Your task to perform on an android device: all mails in gmail Image 0: 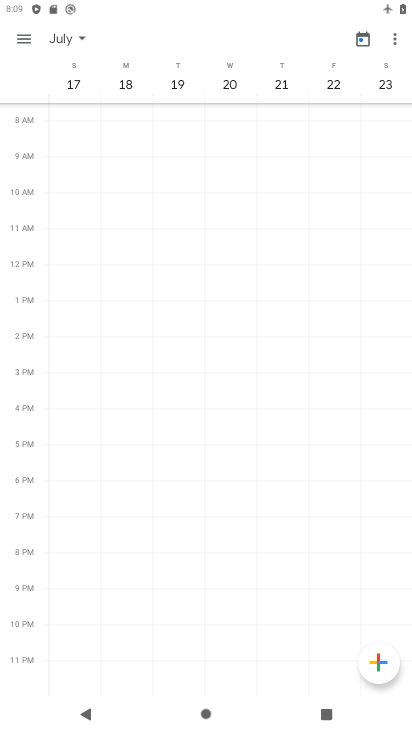
Step 0: press home button
Your task to perform on an android device: all mails in gmail Image 1: 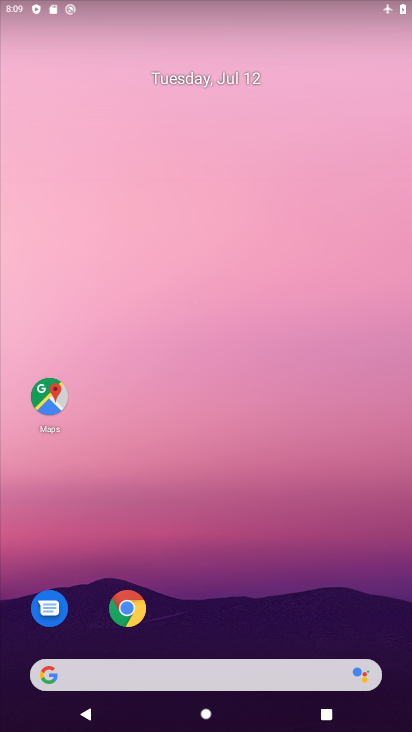
Step 1: drag from (182, 650) to (147, 111)
Your task to perform on an android device: all mails in gmail Image 2: 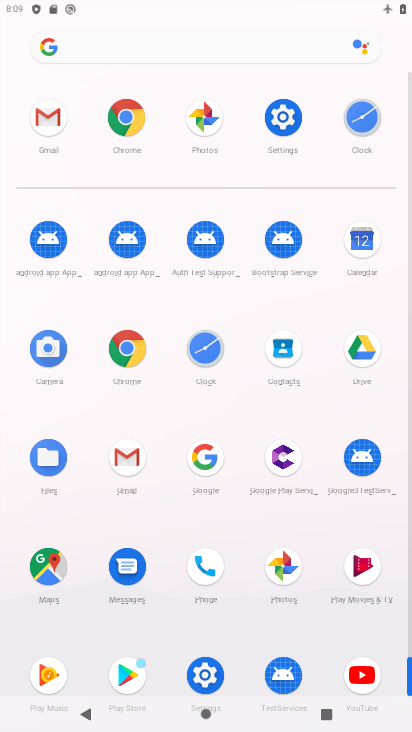
Step 2: click (126, 476)
Your task to perform on an android device: all mails in gmail Image 3: 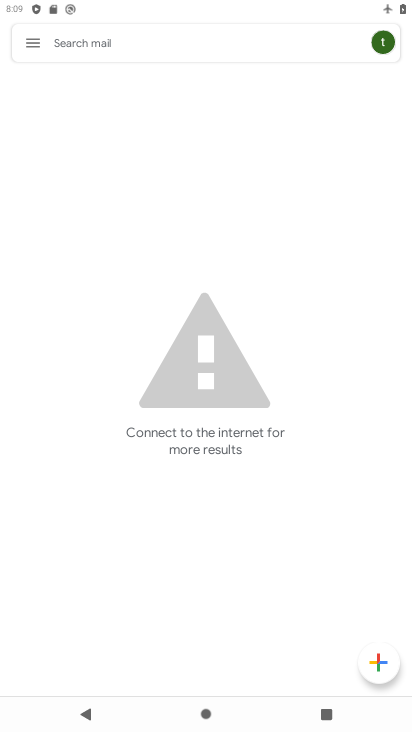
Step 3: drag from (146, 141) to (158, 400)
Your task to perform on an android device: all mails in gmail Image 4: 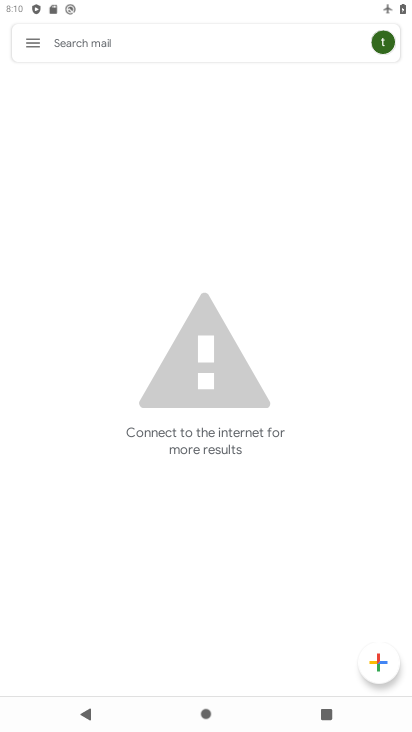
Step 4: click (31, 38)
Your task to perform on an android device: all mails in gmail Image 5: 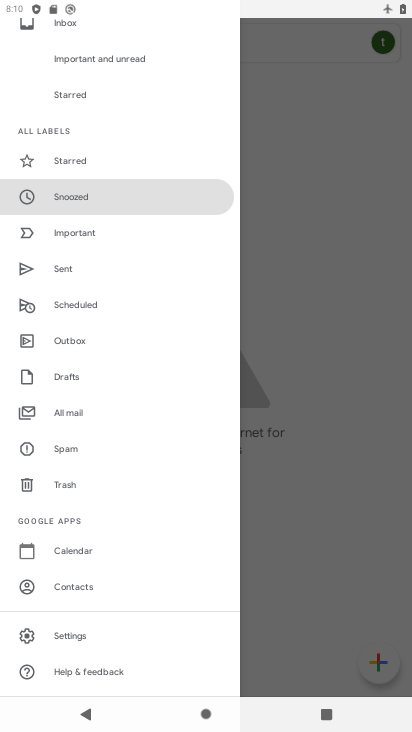
Step 5: drag from (102, 238) to (119, 400)
Your task to perform on an android device: all mails in gmail Image 6: 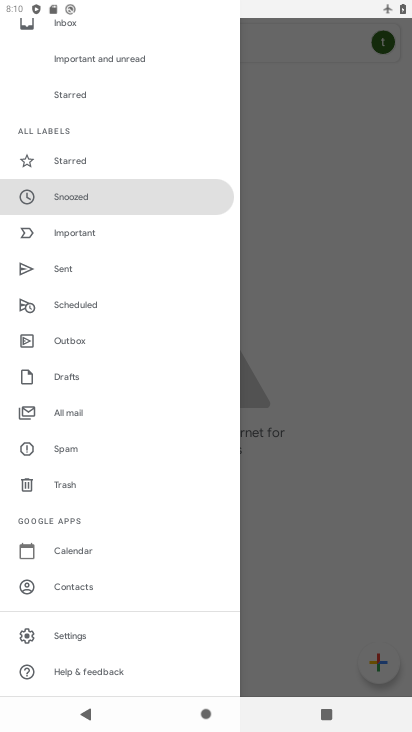
Step 6: click (72, 418)
Your task to perform on an android device: all mails in gmail Image 7: 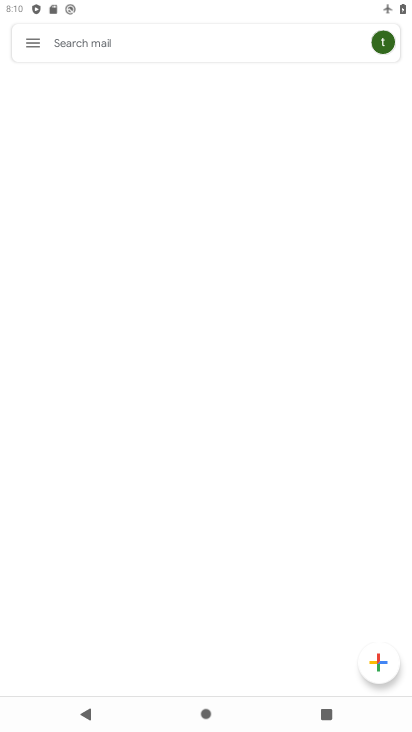
Step 7: task complete